Your task to perform on an android device: What's the weather? Image 0: 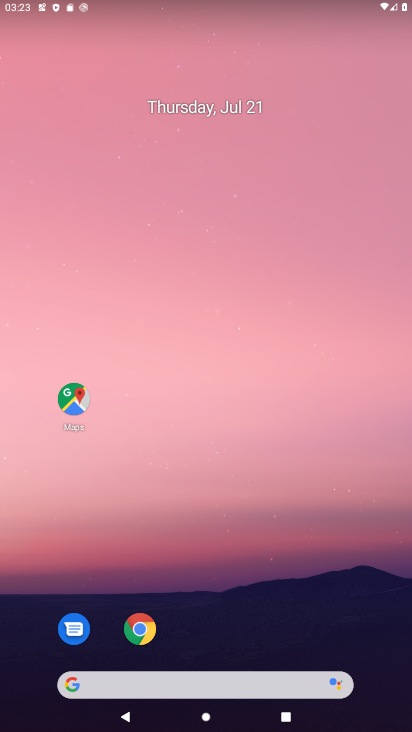
Step 0: click (152, 623)
Your task to perform on an android device: What's the weather? Image 1: 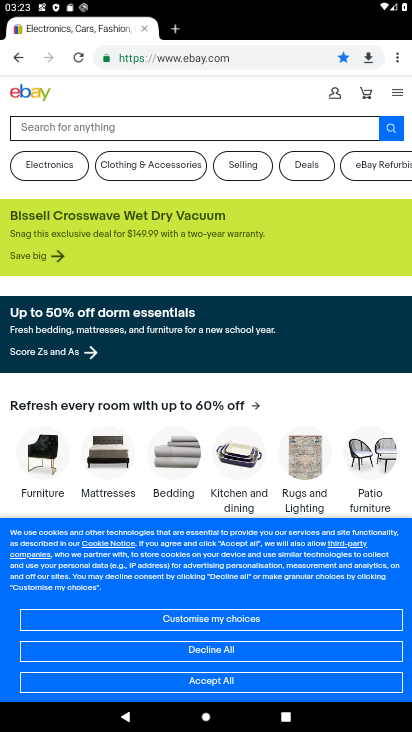
Step 1: click (168, 63)
Your task to perform on an android device: What's the weather? Image 2: 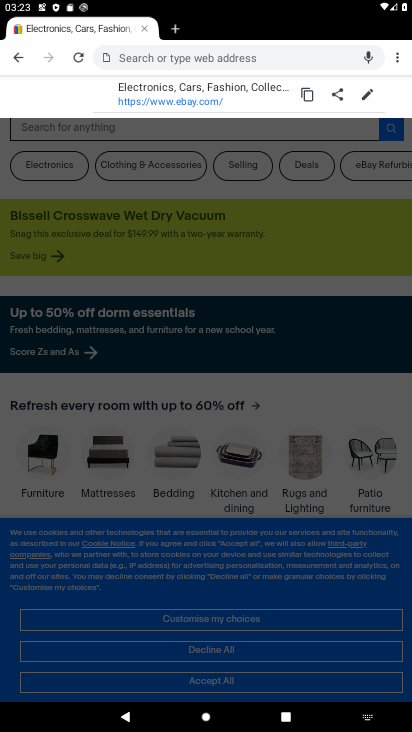
Step 2: type "What's the weather?"
Your task to perform on an android device: What's the weather? Image 3: 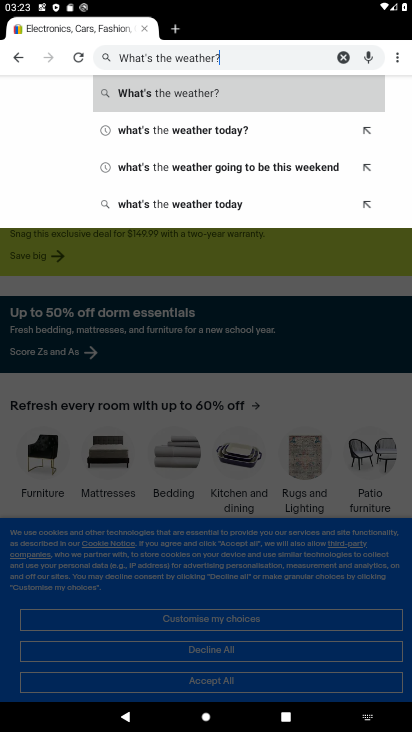
Step 3: click (117, 91)
Your task to perform on an android device: What's the weather? Image 4: 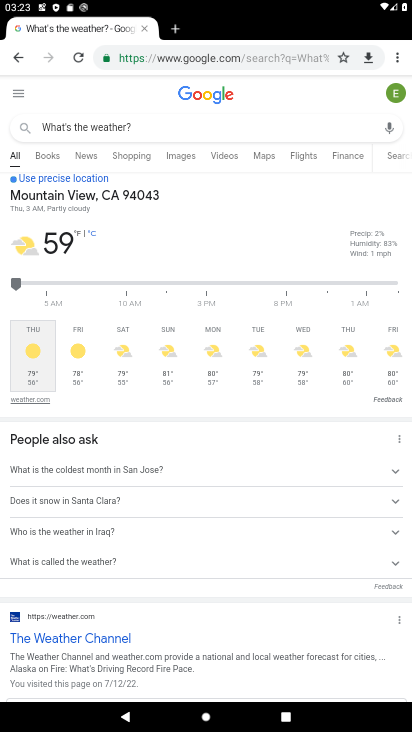
Step 4: task complete